Your task to perform on an android device: set default search engine in the chrome app Image 0: 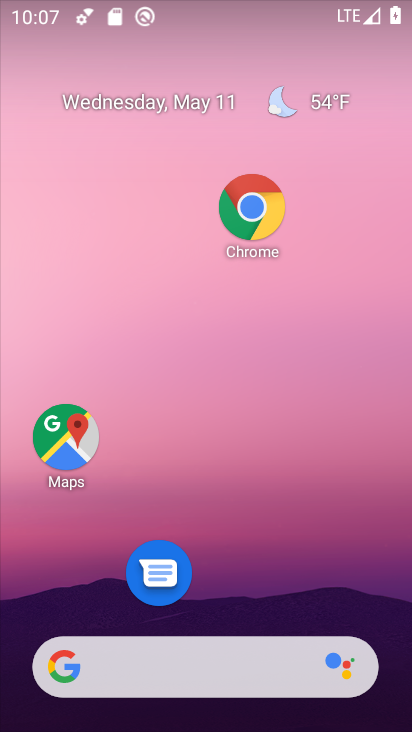
Step 0: drag from (155, 664) to (404, 592)
Your task to perform on an android device: set default search engine in the chrome app Image 1: 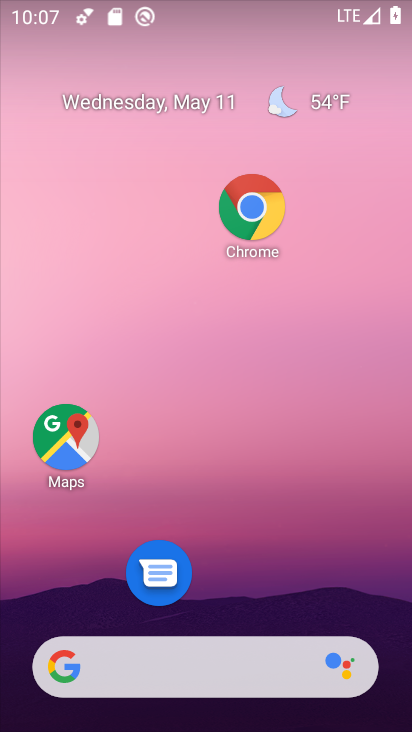
Step 1: click (267, 383)
Your task to perform on an android device: set default search engine in the chrome app Image 2: 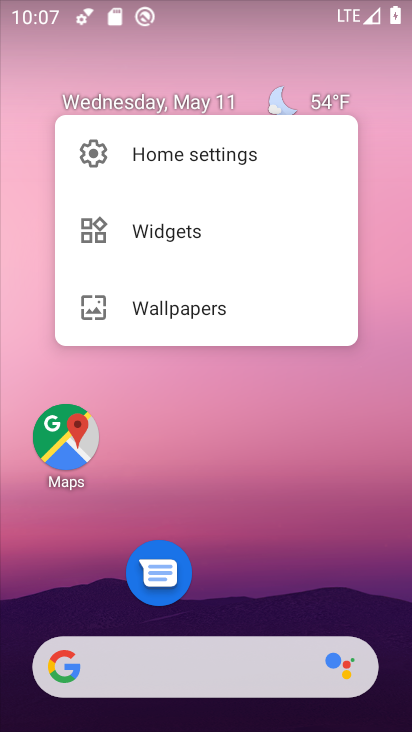
Step 2: drag from (306, 616) to (324, 269)
Your task to perform on an android device: set default search engine in the chrome app Image 3: 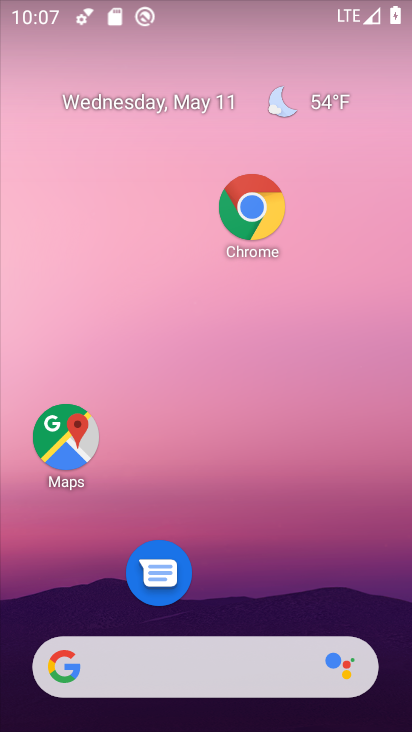
Step 3: drag from (296, 620) to (325, 155)
Your task to perform on an android device: set default search engine in the chrome app Image 4: 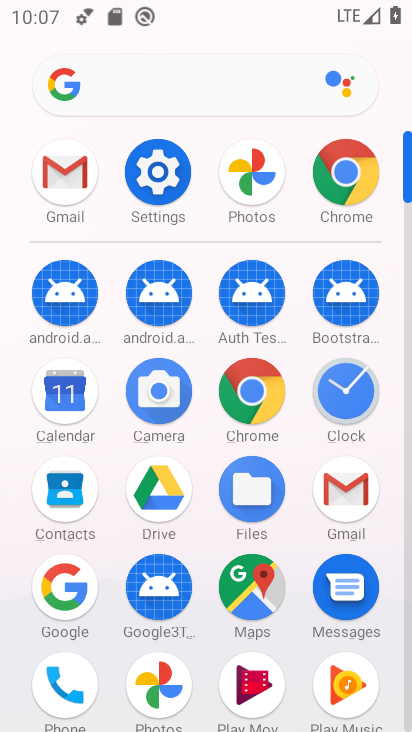
Step 4: click (265, 408)
Your task to perform on an android device: set default search engine in the chrome app Image 5: 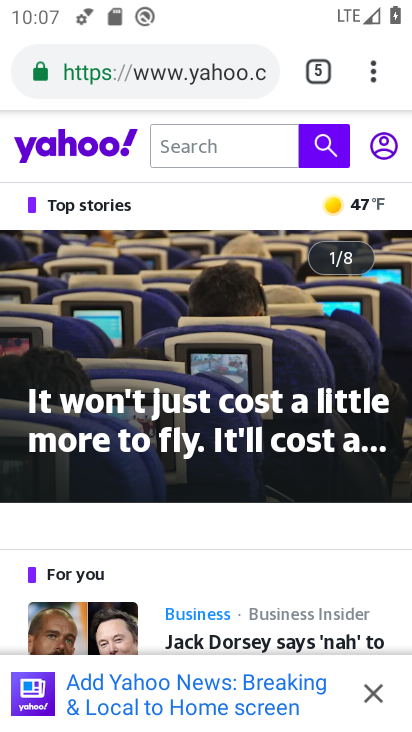
Step 5: click (376, 68)
Your task to perform on an android device: set default search engine in the chrome app Image 6: 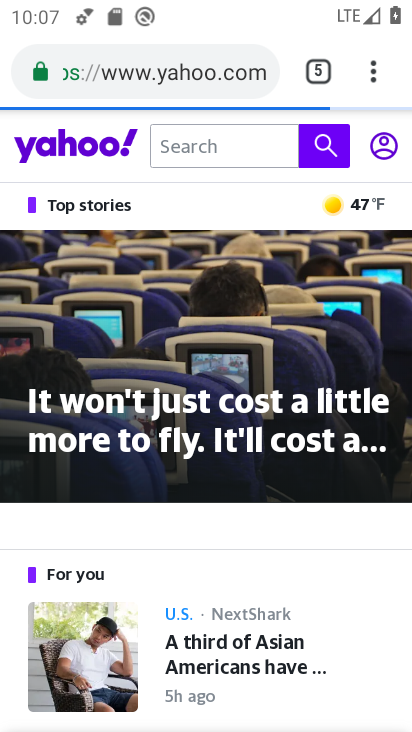
Step 6: drag from (379, 66) to (199, 566)
Your task to perform on an android device: set default search engine in the chrome app Image 7: 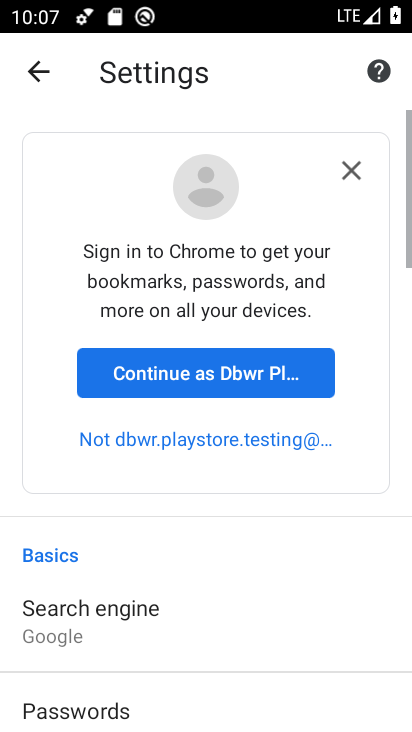
Step 7: drag from (233, 644) to (247, 337)
Your task to perform on an android device: set default search engine in the chrome app Image 8: 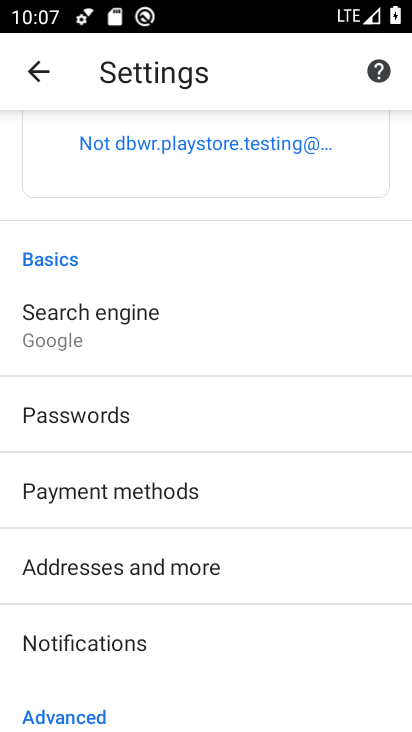
Step 8: click (213, 342)
Your task to perform on an android device: set default search engine in the chrome app Image 9: 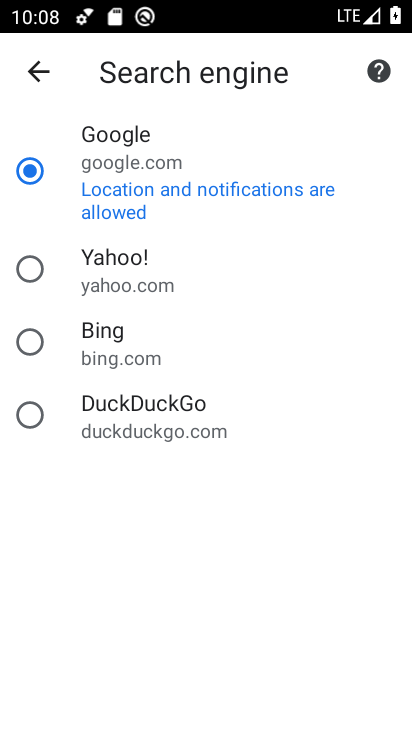
Step 9: click (52, 269)
Your task to perform on an android device: set default search engine in the chrome app Image 10: 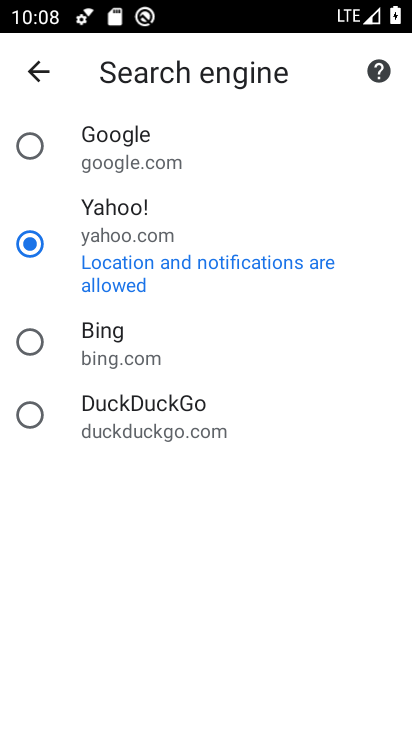
Step 10: click (112, 157)
Your task to perform on an android device: set default search engine in the chrome app Image 11: 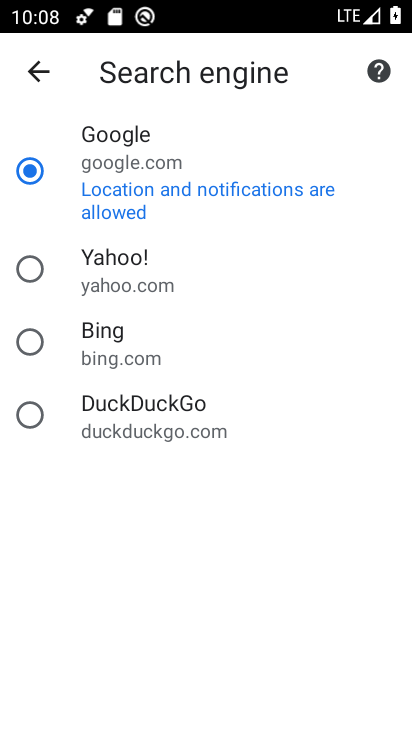
Step 11: task complete